Your task to perform on an android device: change text size in settings app Image 0: 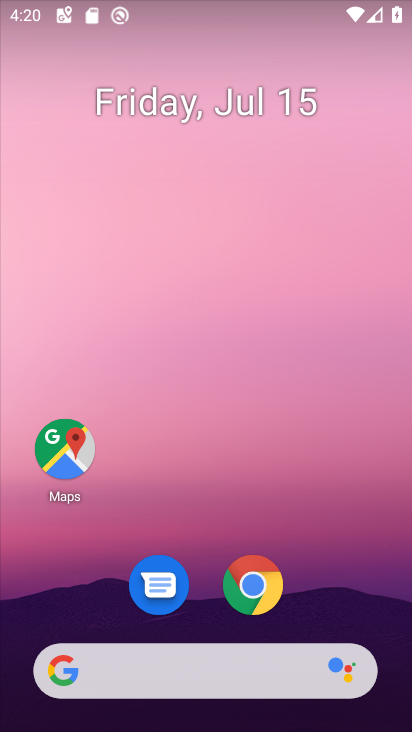
Step 0: drag from (270, 485) to (266, 22)
Your task to perform on an android device: change text size in settings app Image 1: 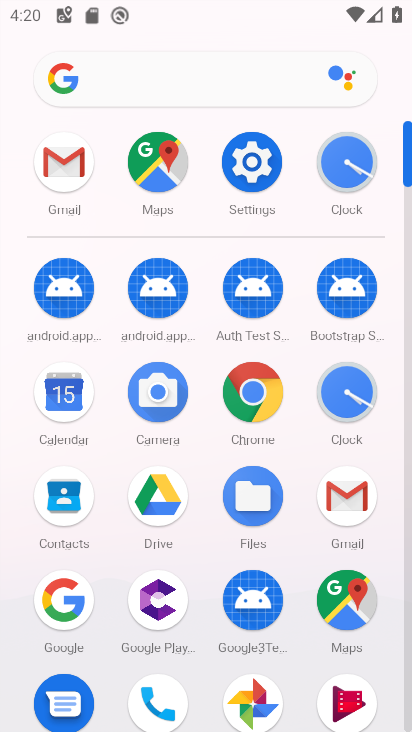
Step 1: click (262, 157)
Your task to perform on an android device: change text size in settings app Image 2: 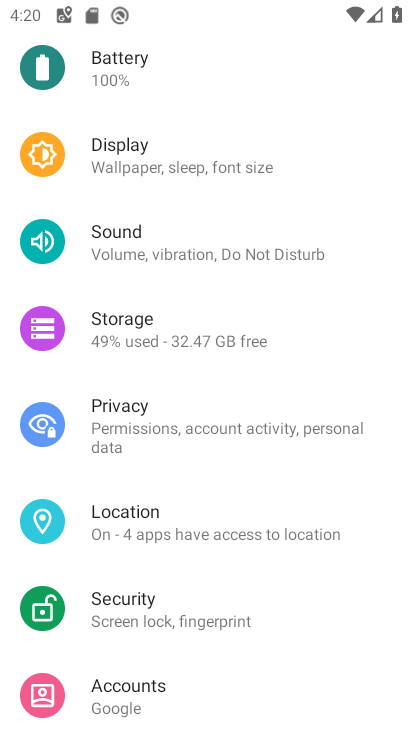
Step 2: click (237, 162)
Your task to perform on an android device: change text size in settings app Image 3: 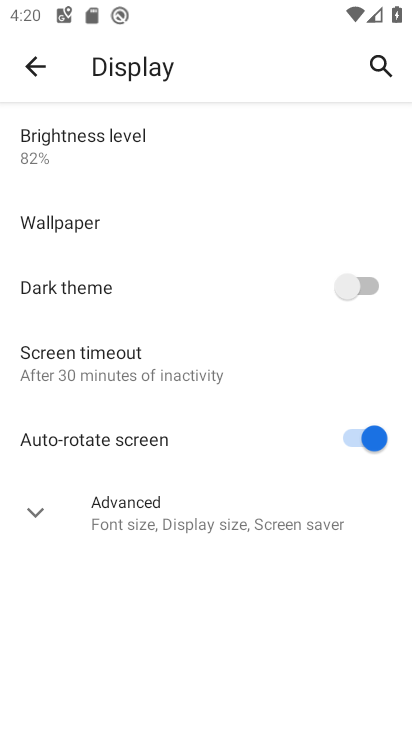
Step 3: click (36, 501)
Your task to perform on an android device: change text size in settings app Image 4: 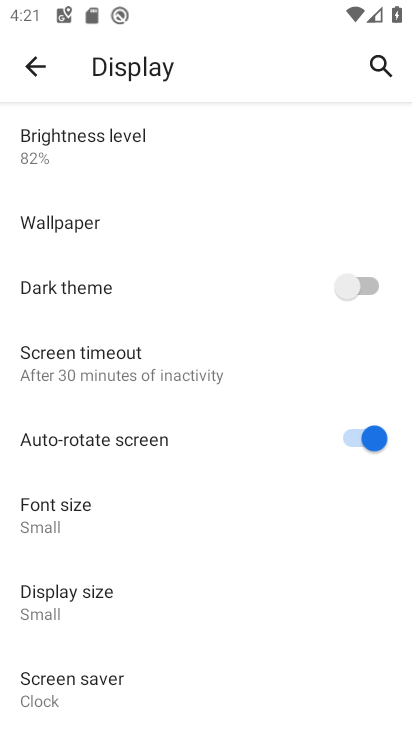
Step 4: click (61, 514)
Your task to perform on an android device: change text size in settings app Image 5: 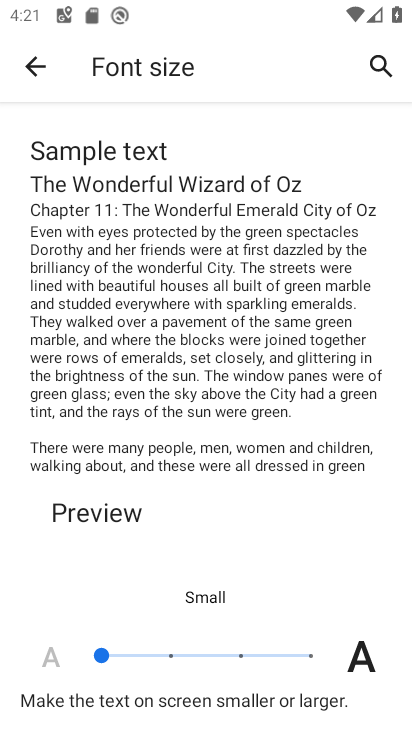
Step 5: click (173, 652)
Your task to perform on an android device: change text size in settings app Image 6: 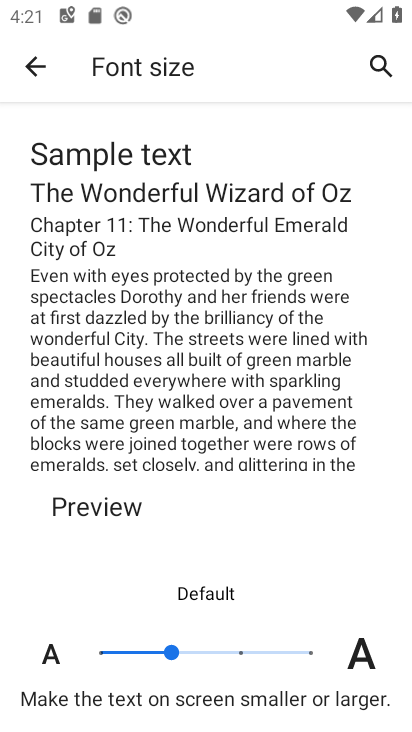
Step 6: click (43, 65)
Your task to perform on an android device: change text size in settings app Image 7: 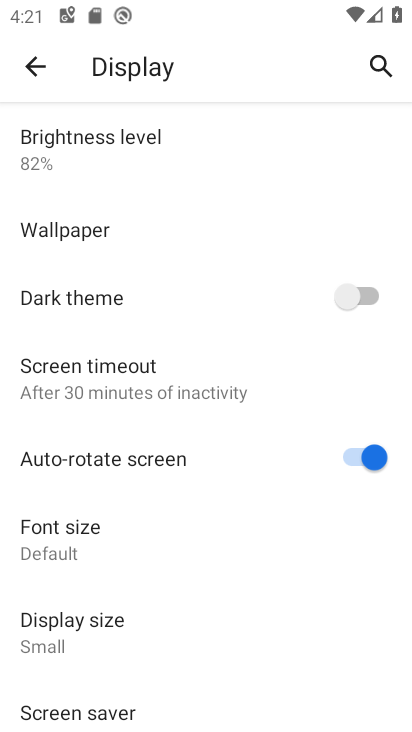
Step 7: task complete